Your task to perform on an android device: toggle wifi Image 0: 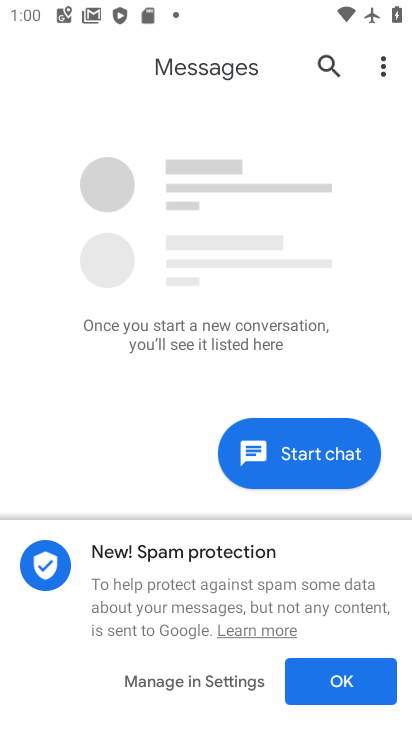
Step 0: press home button
Your task to perform on an android device: toggle wifi Image 1: 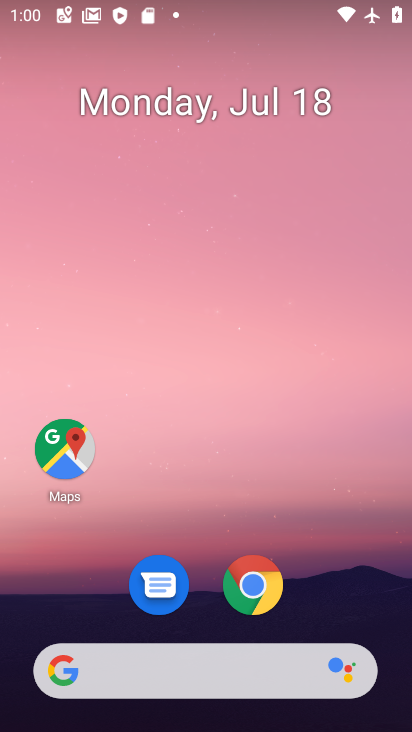
Step 1: drag from (144, 675) to (139, 170)
Your task to perform on an android device: toggle wifi Image 2: 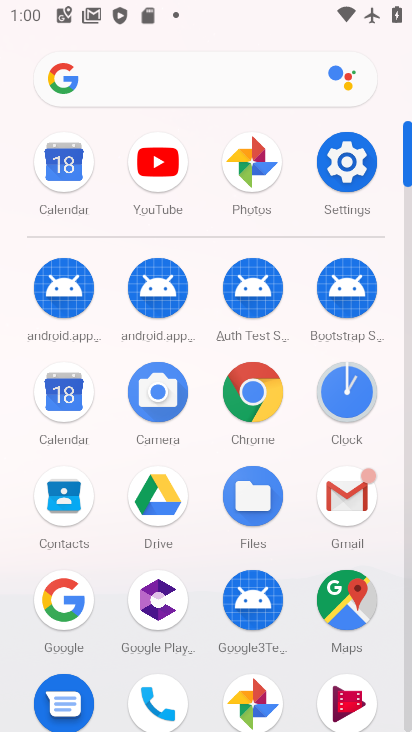
Step 2: click (350, 154)
Your task to perform on an android device: toggle wifi Image 3: 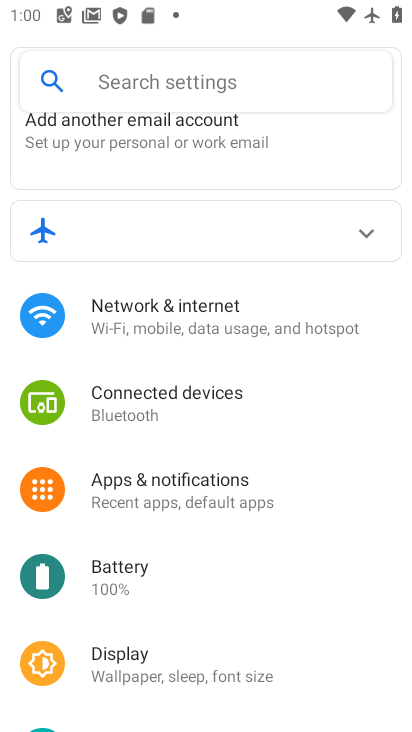
Step 3: click (210, 311)
Your task to perform on an android device: toggle wifi Image 4: 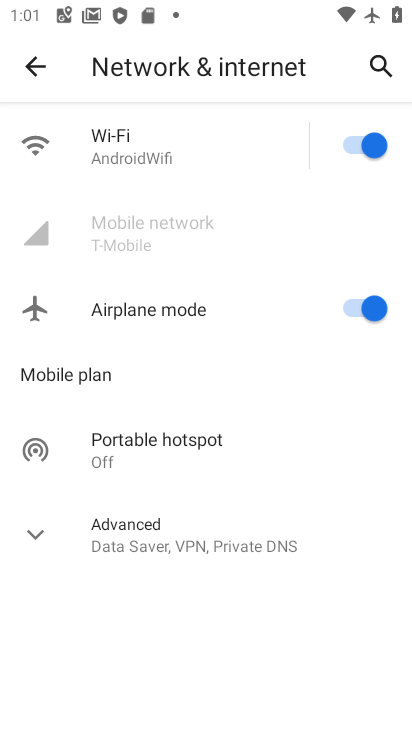
Step 4: click (347, 148)
Your task to perform on an android device: toggle wifi Image 5: 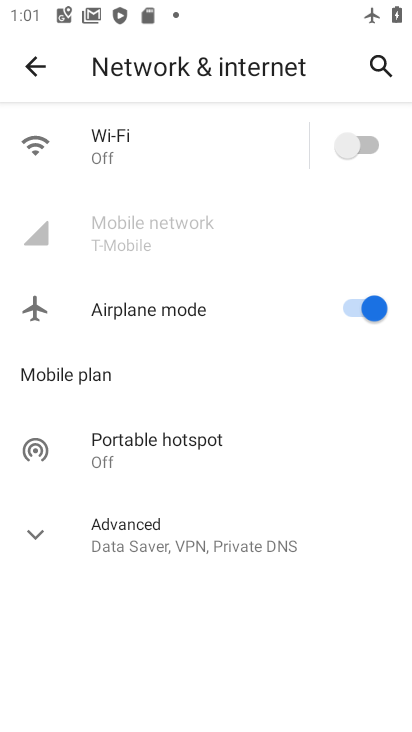
Step 5: task complete